Your task to perform on an android device: Open location settings Image 0: 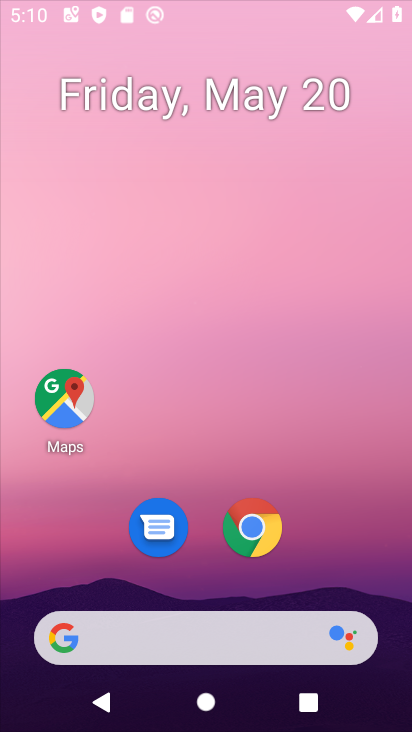
Step 0: drag from (334, 635) to (356, 98)
Your task to perform on an android device: Open location settings Image 1: 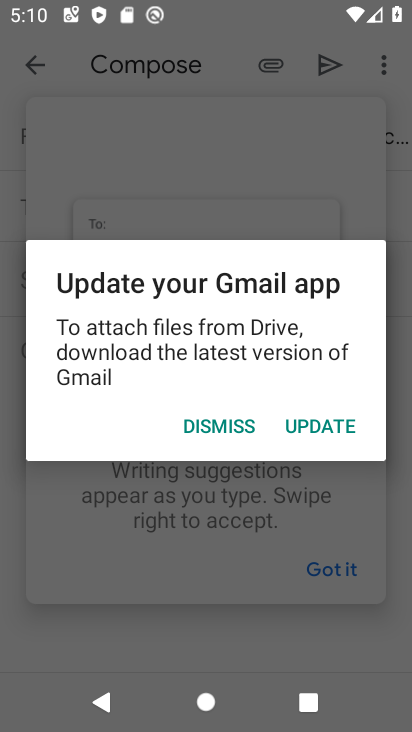
Step 1: press home button
Your task to perform on an android device: Open location settings Image 2: 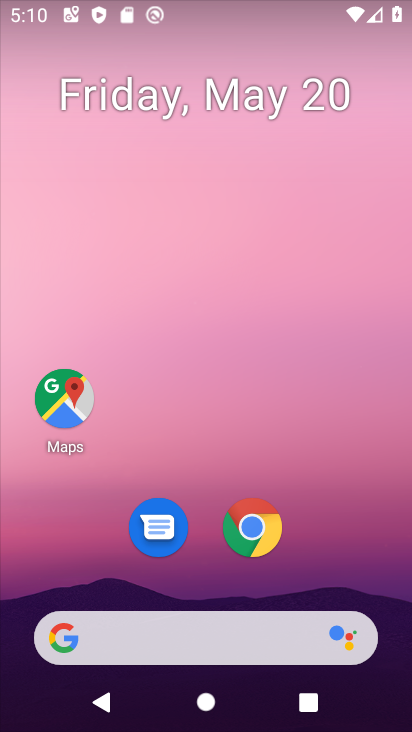
Step 2: drag from (320, 601) to (348, 1)
Your task to perform on an android device: Open location settings Image 3: 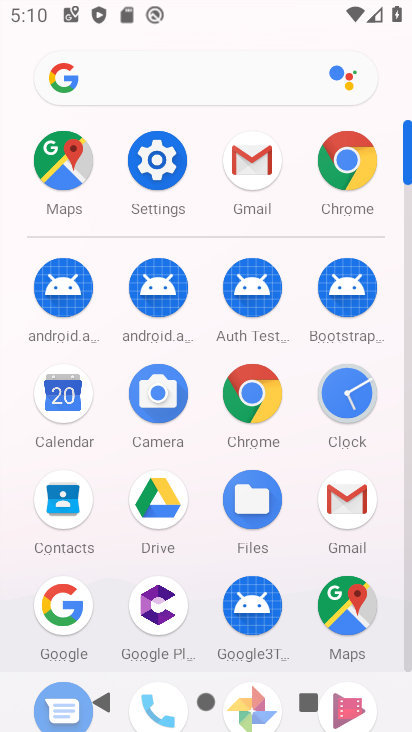
Step 3: click (154, 172)
Your task to perform on an android device: Open location settings Image 4: 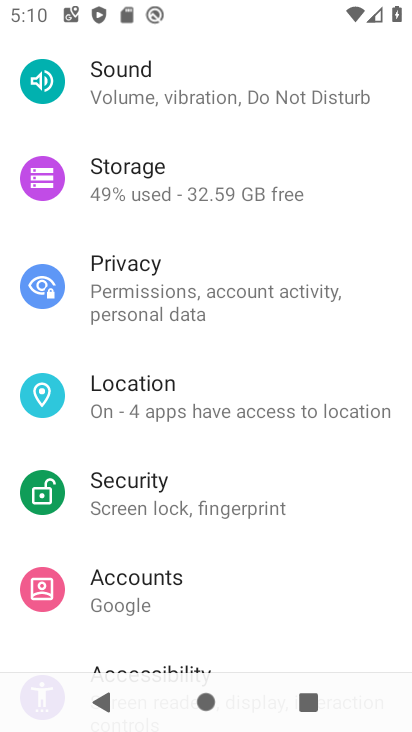
Step 4: click (175, 407)
Your task to perform on an android device: Open location settings Image 5: 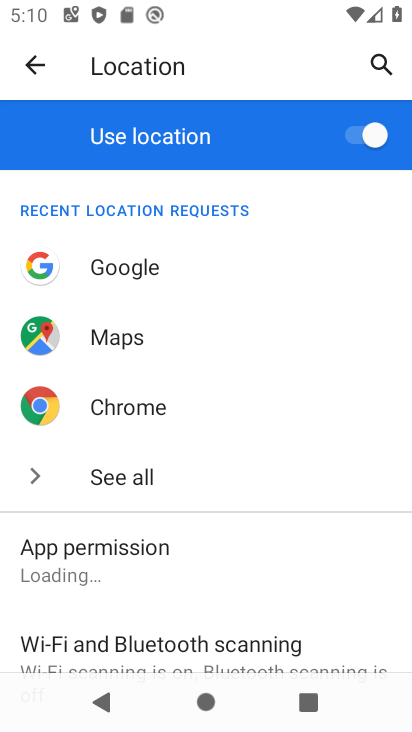
Step 5: task complete